Your task to perform on an android device: Go to privacy settings Image 0: 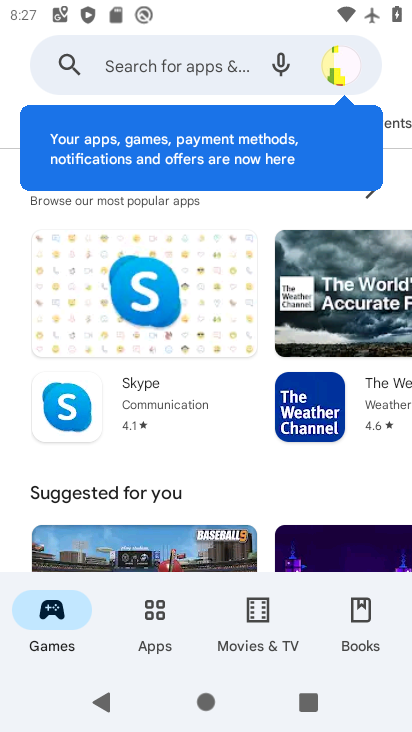
Step 0: press home button
Your task to perform on an android device: Go to privacy settings Image 1: 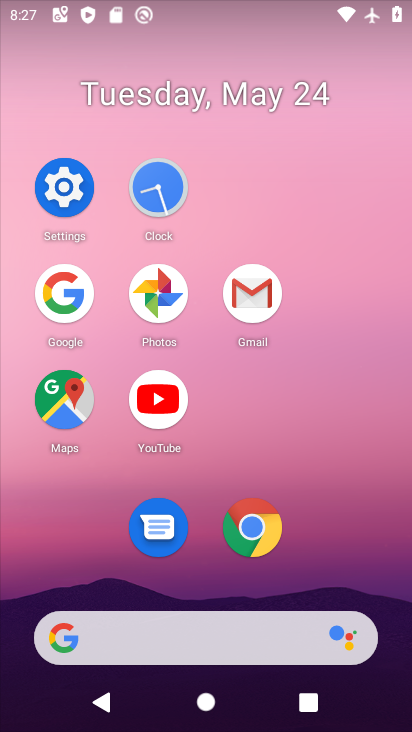
Step 1: click (78, 170)
Your task to perform on an android device: Go to privacy settings Image 2: 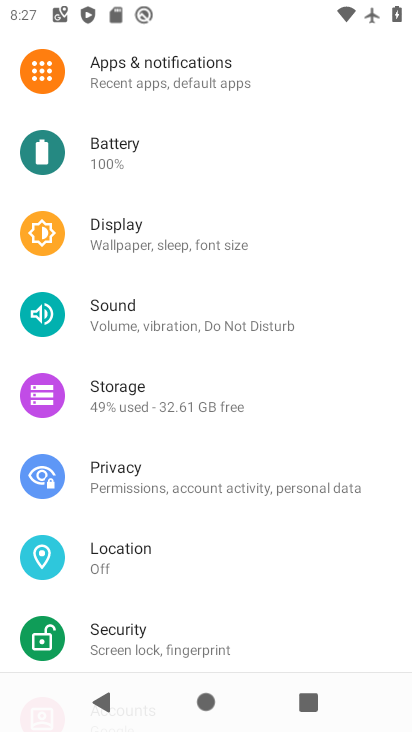
Step 2: click (155, 472)
Your task to perform on an android device: Go to privacy settings Image 3: 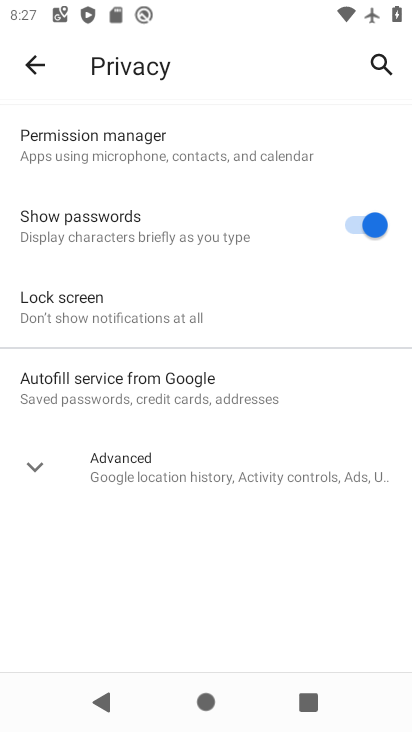
Step 3: task complete